Your task to perform on an android device: change notifications settings Image 0: 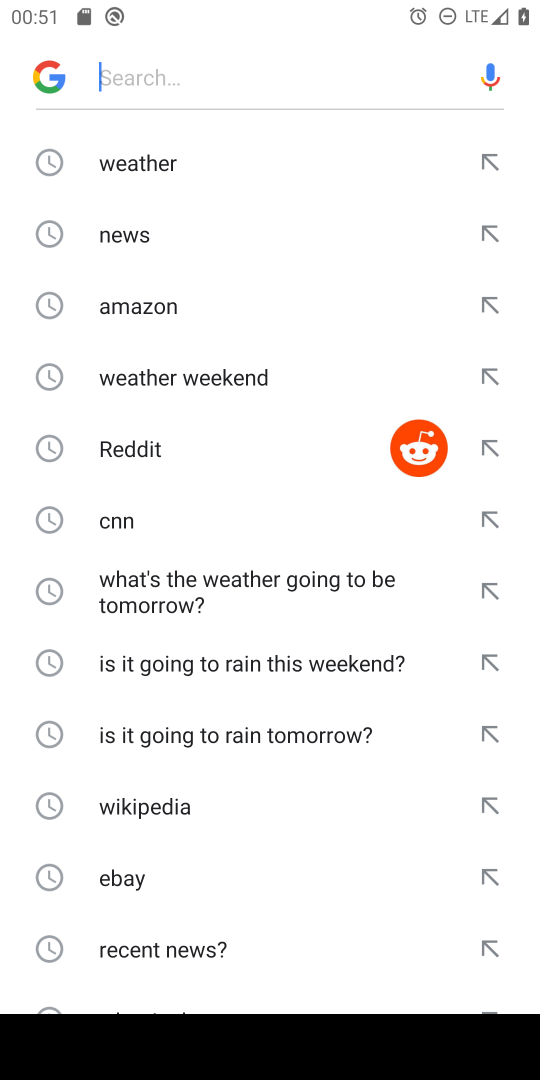
Step 0: press home button
Your task to perform on an android device: change notifications settings Image 1: 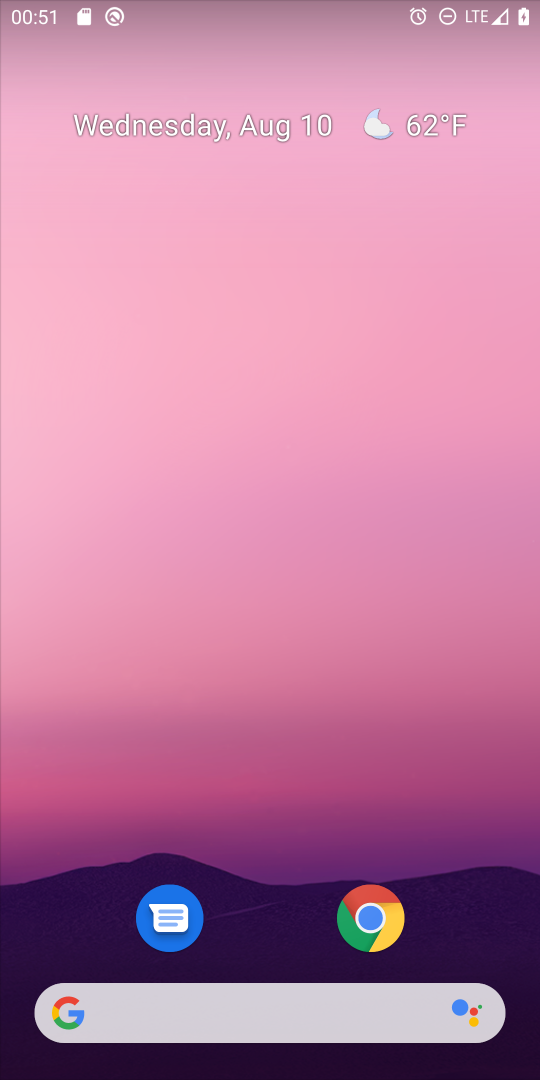
Step 1: drag from (256, 708) to (280, 91)
Your task to perform on an android device: change notifications settings Image 2: 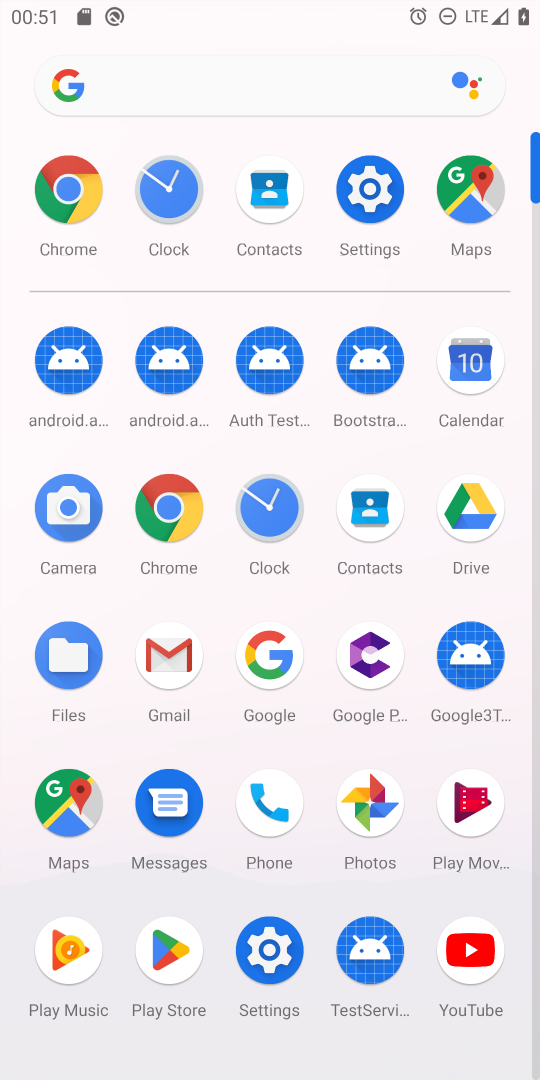
Step 2: click (275, 942)
Your task to perform on an android device: change notifications settings Image 3: 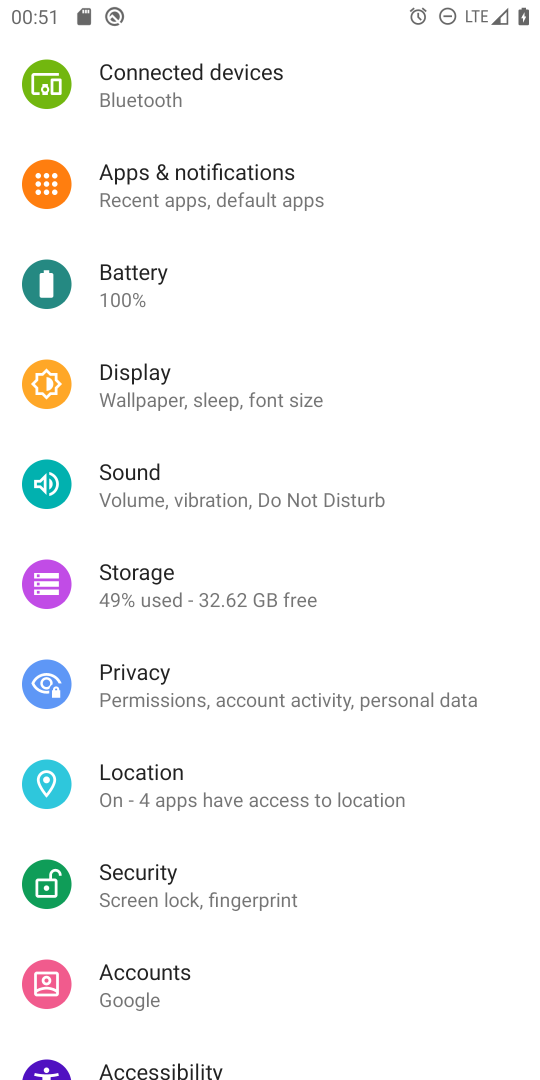
Step 3: click (203, 185)
Your task to perform on an android device: change notifications settings Image 4: 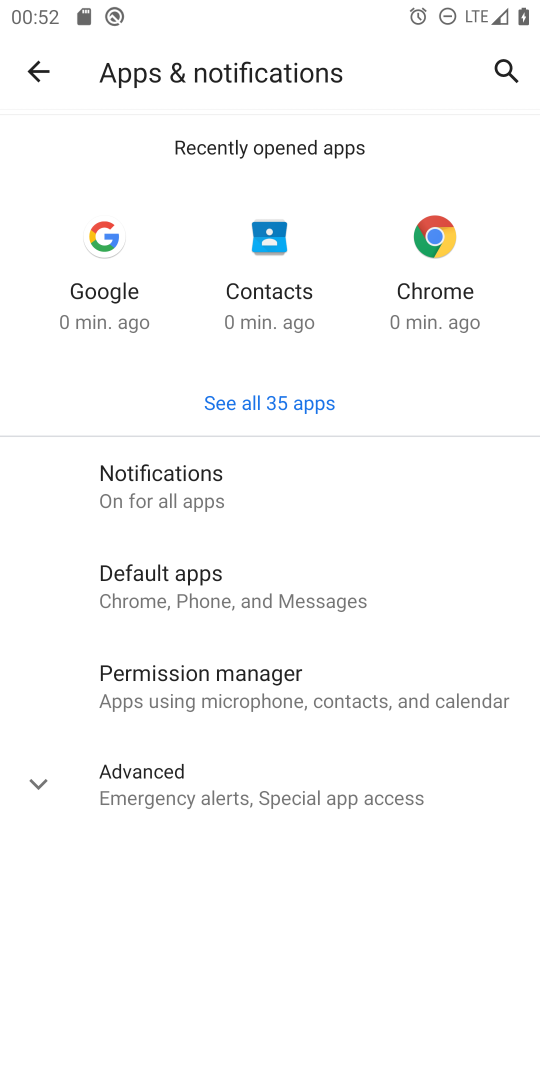
Step 4: click (209, 482)
Your task to perform on an android device: change notifications settings Image 5: 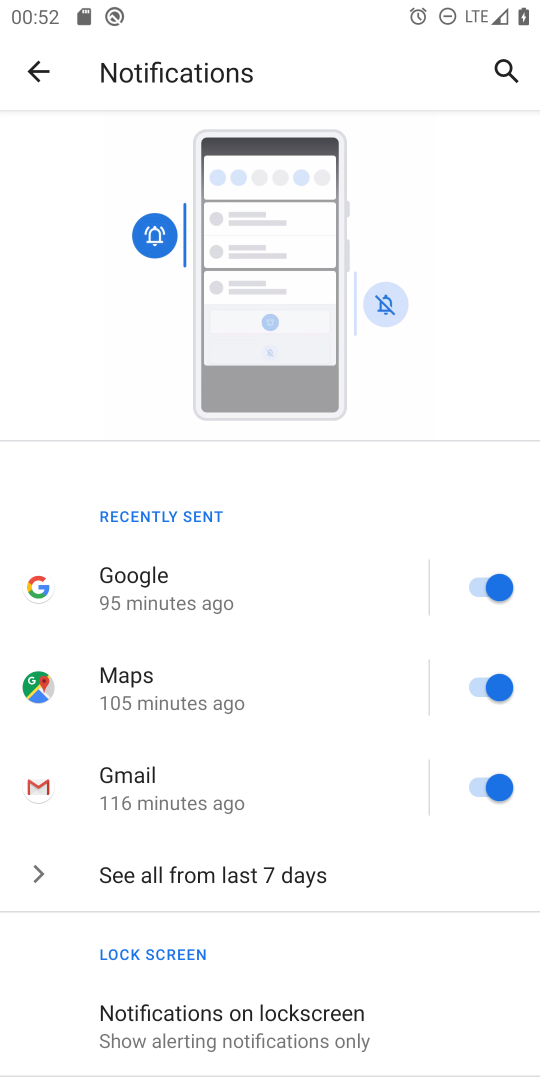
Step 5: task complete